Your task to perform on an android device: turn pop-ups off in chrome Image 0: 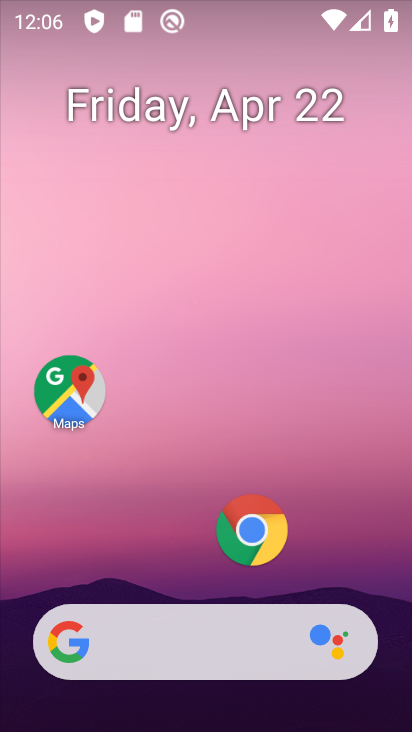
Step 0: click (249, 528)
Your task to perform on an android device: turn pop-ups off in chrome Image 1: 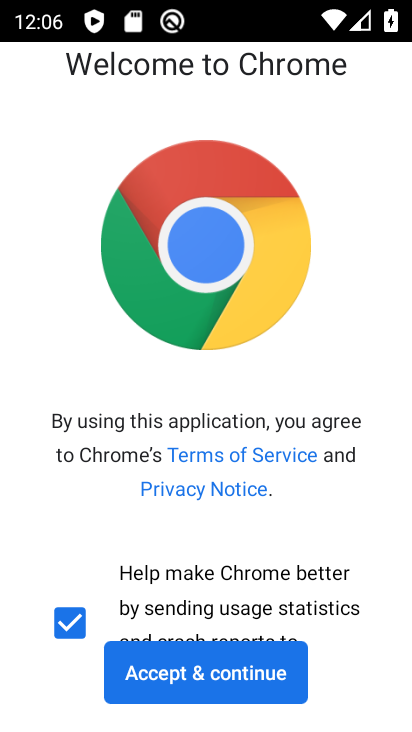
Step 1: click (221, 671)
Your task to perform on an android device: turn pop-ups off in chrome Image 2: 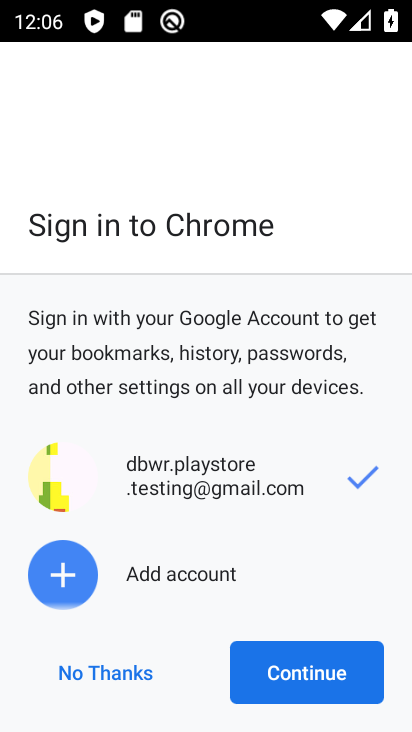
Step 2: click (277, 667)
Your task to perform on an android device: turn pop-ups off in chrome Image 3: 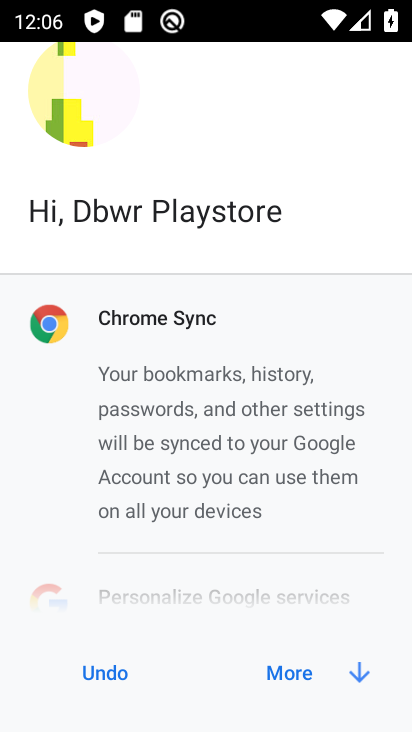
Step 3: click (290, 670)
Your task to perform on an android device: turn pop-ups off in chrome Image 4: 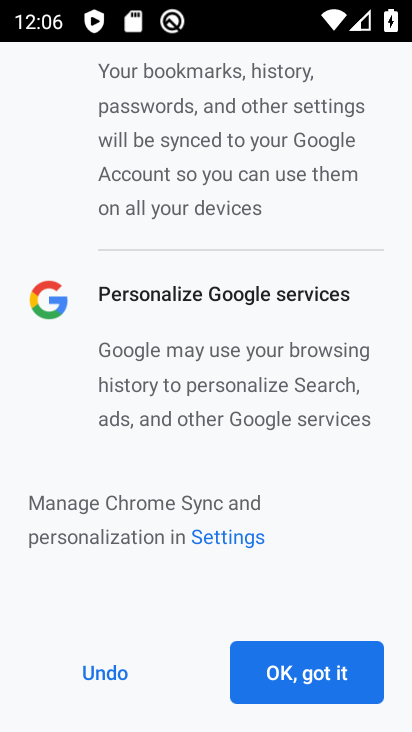
Step 4: click (310, 684)
Your task to perform on an android device: turn pop-ups off in chrome Image 5: 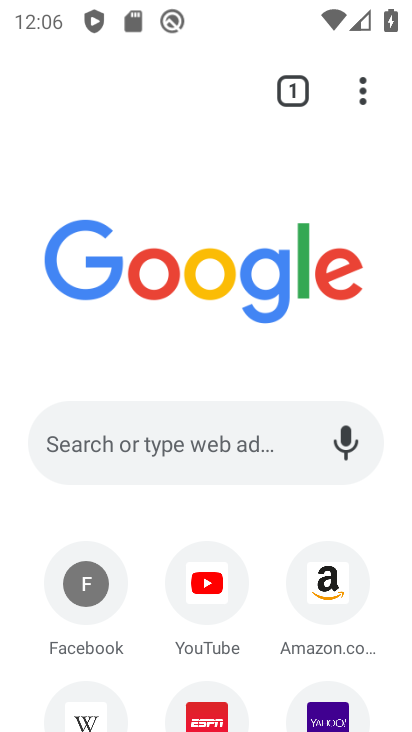
Step 5: drag from (362, 92) to (185, 539)
Your task to perform on an android device: turn pop-ups off in chrome Image 6: 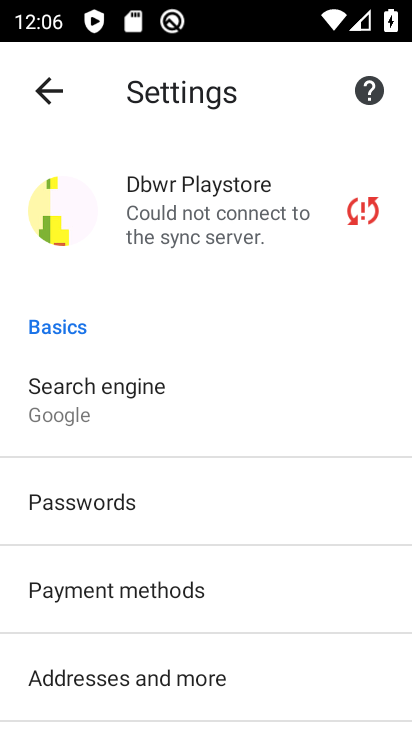
Step 6: drag from (241, 702) to (245, 242)
Your task to perform on an android device: turn pop-ups off in chrome Image 7: 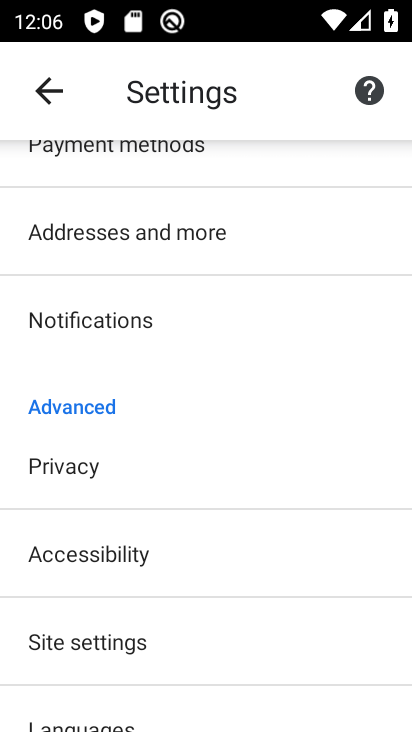
Step 7: drag from (208, 607) to (218, 349)
Your task to perform on an android device: turn pop-ups off in chrome Image 8: 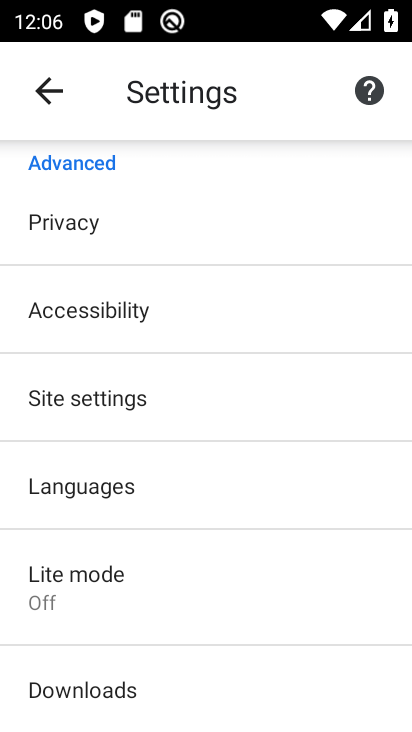
Step 8: click (99, 400)
Your task to perform on an android device: turn pop-ups off in chrome Image 9: 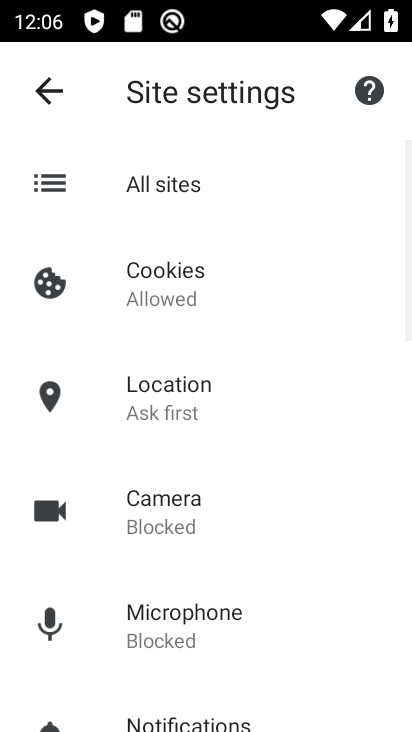
Step 9: drag from (253, 679) to (265, 307)
Your task to perform on an android device: turn pop-ups off in chrome Image 10: 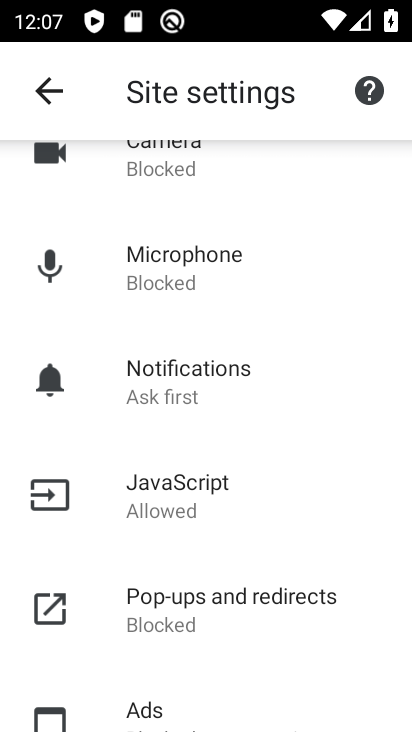
Step 10: click (192, 595)
Your task to perform on an android device: turn pop-ups off in chrome Image 11: 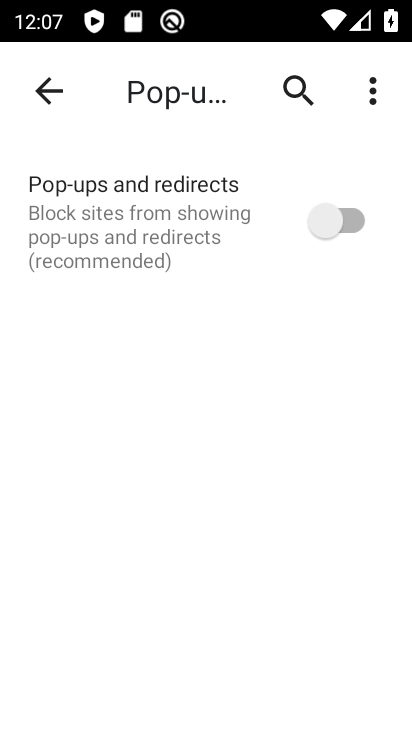
Step 11: task complete